Your task to perform on an android device: move a message to another label in the gmail app Image 0: 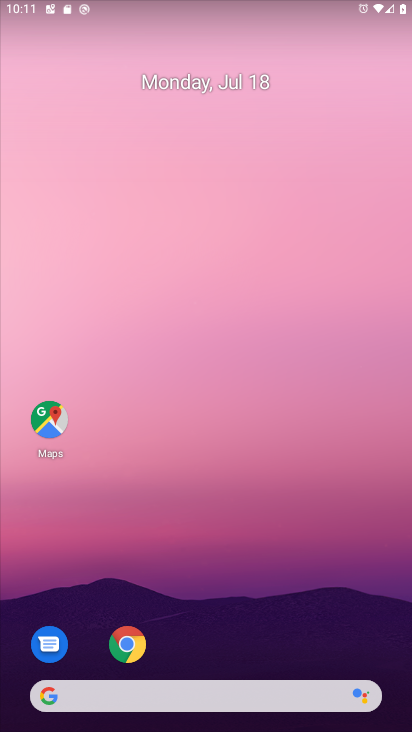
Step 0: task complete